Your task to perform on an android device: Show me popular games on the Play Store Image 0: 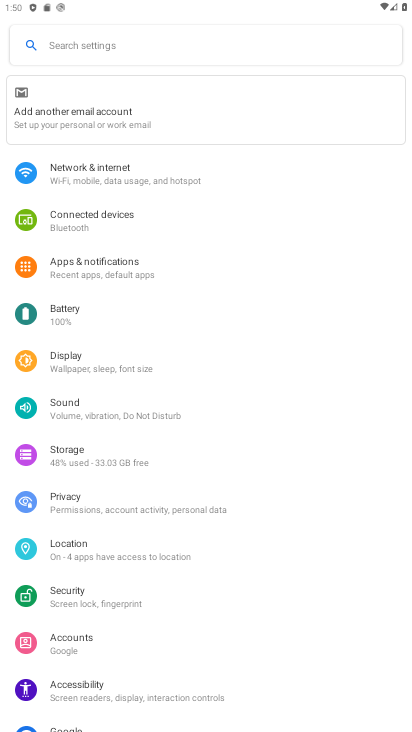
Step 0: press home button
Your task to perform on an android device: Show me popular games on the Play Store Image 1: 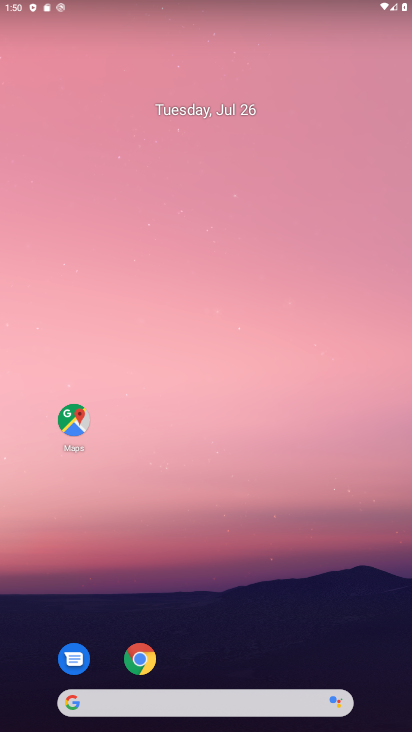
Step 1: drag from (217, 634) to (223, 84)
Your task to perform on an android device: Show me popular games on the Play Store Image 2: 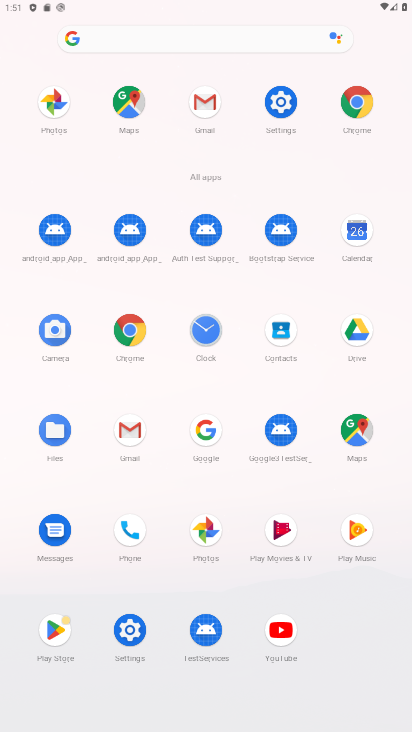
Step 2: click (49, 637)
Your task to perform on an android device: Show me popular games on the Play Store Image 3: 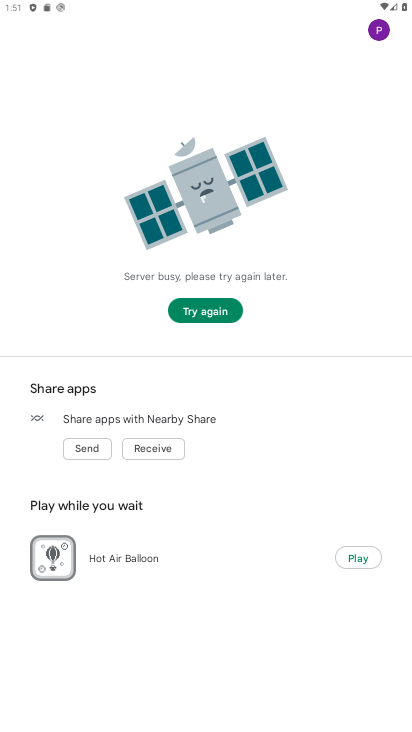
Step 3: click (204, 318)
Your task to perform on an android device: Show me popular games on the Play Store Image 4: 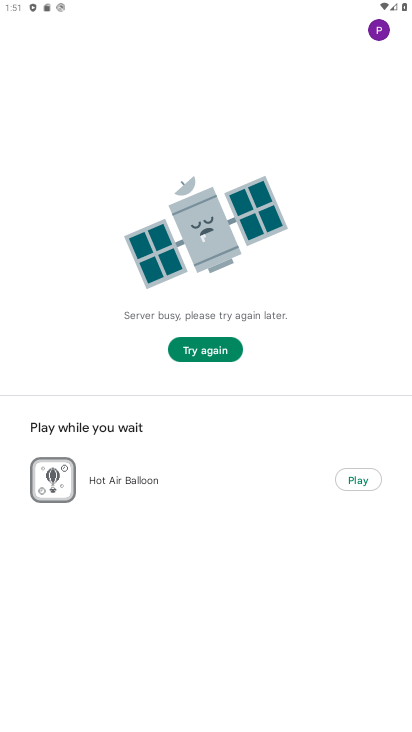
Step 4: click (204, 318)
Your task to perform on an android device: Show me popular games on the Play Store Image 5: 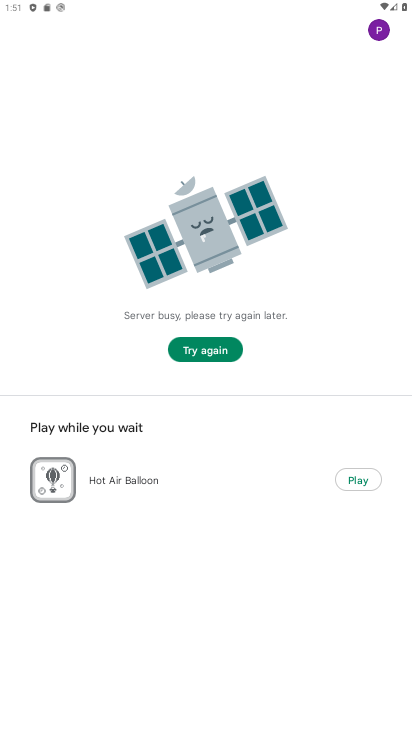
Step 5: click (204, 341)
Your task to perform on an android device: Show me popular games on the Play Store Image 6: 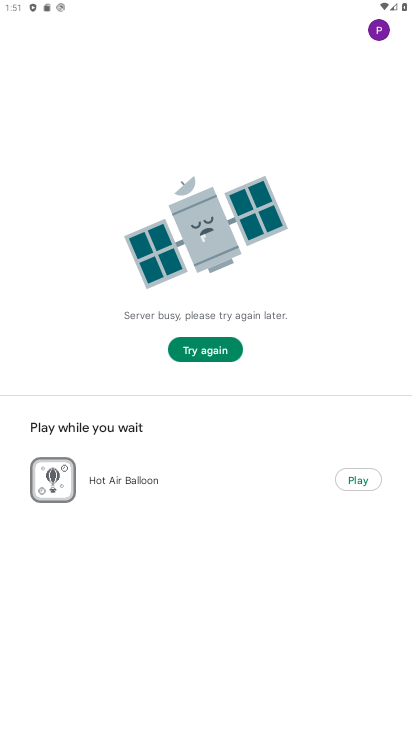
Step 6: task complete